Your task to perform on an android device: Search for Mexican restaurants on Maps Image 0: 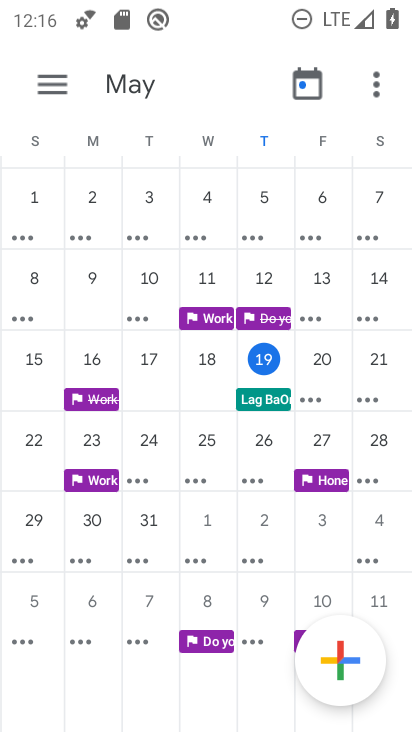
Step 0: press home button
Your task to perform on an android device: Search for Mexican restaurants on Maps Image 1: 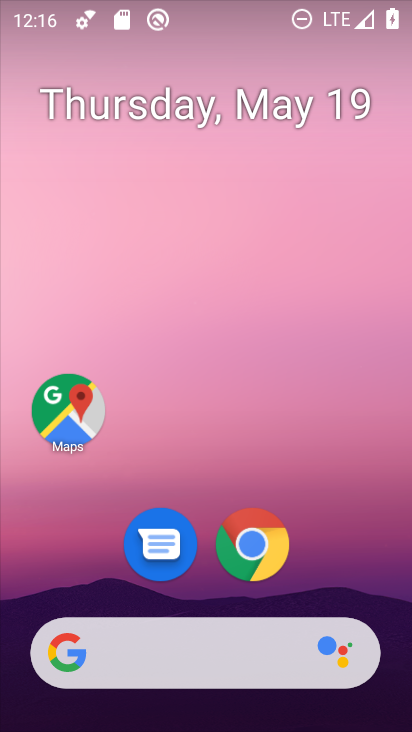
Step 1: click (64, 416)
Your task to perform on an android device: Search for Mexican restaurants on Maps Image 2: 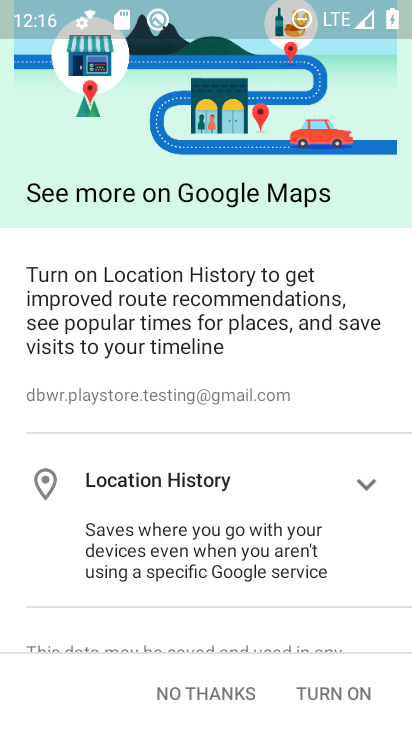
Step 2: click (345, 712)
Your task to perform on an android device: Search for Mexican restaurants on Maps Image 3: 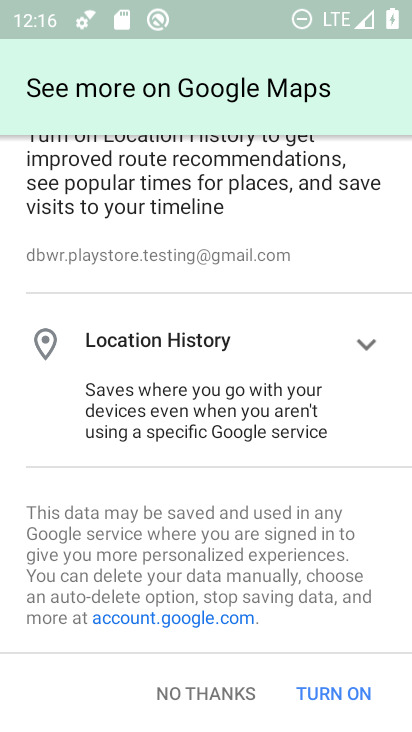
Step 3: click (345, 712)
Your task to perform on an android device: Search for Mexican restaurants on Maps Image 4: 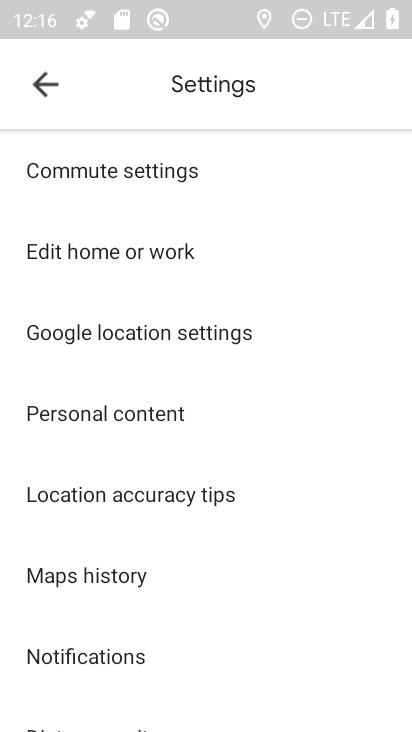
Step 4: click (47, 79)
Your task to perform on an android device: Search for Mexican restaurants on Maps Image 5: 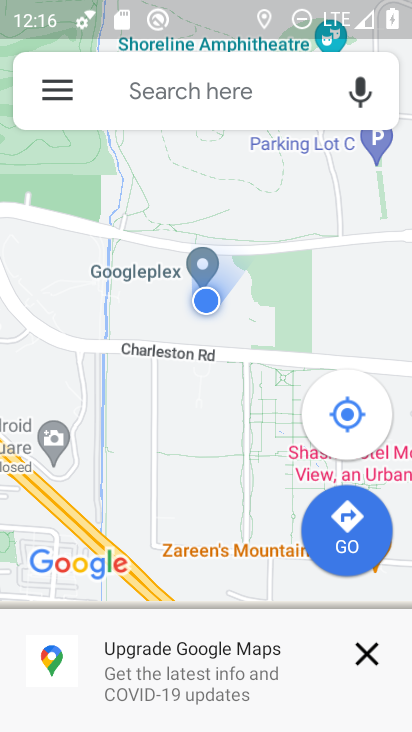
Step 5: click (179, 107)
Your task to perform on an android device: Search for Mexican restaurants on Maps Image 6: 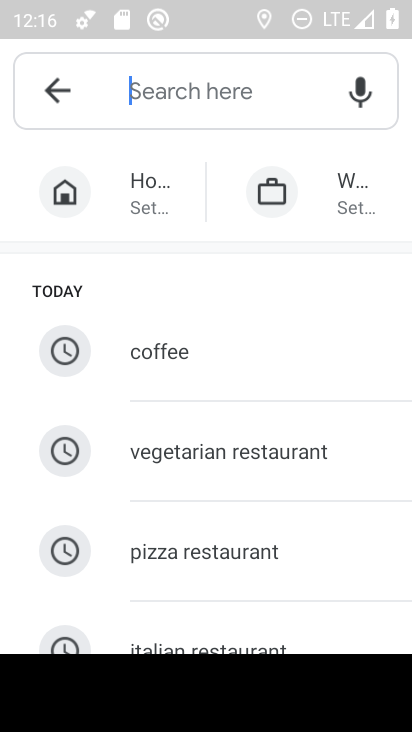
Step 6: drag from (234, 517) to (242, 232)
Your task to perform on an android device: Search for Mexican restaurants on Maps Image 7: 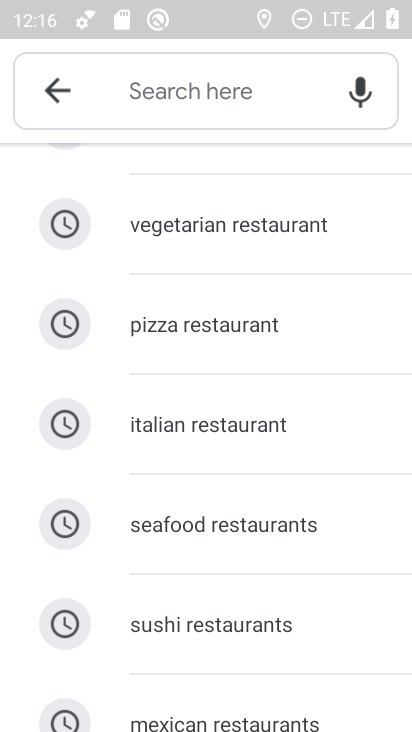
Step 7: drag from (173, 586) to (190, 398)
Your task to perform on an android device: Search for Mexican restaurants on Maps Image 8: 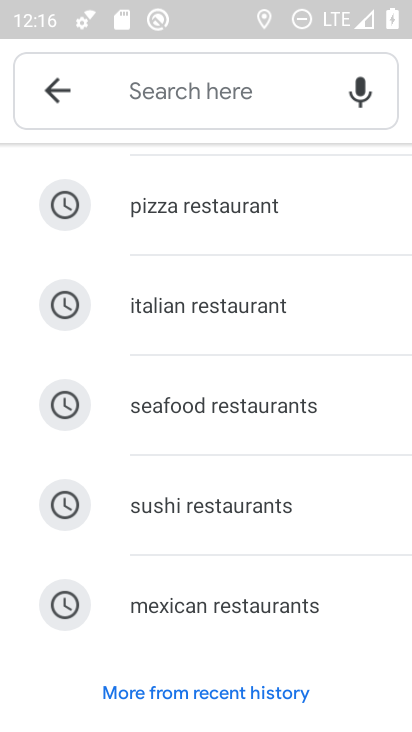
Step 8: click (199, 597)
Your task to perform on an android device: Search for Mexican restaurants on Maps Image 9: 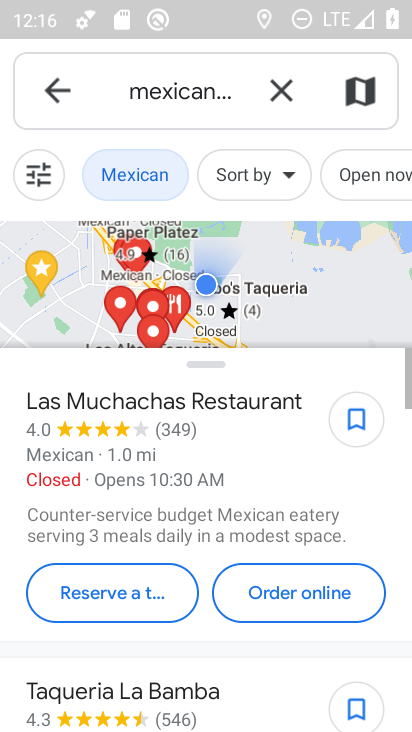
Step 9: task complete